Your task to perform on an android device: Open notification settings Image 0: 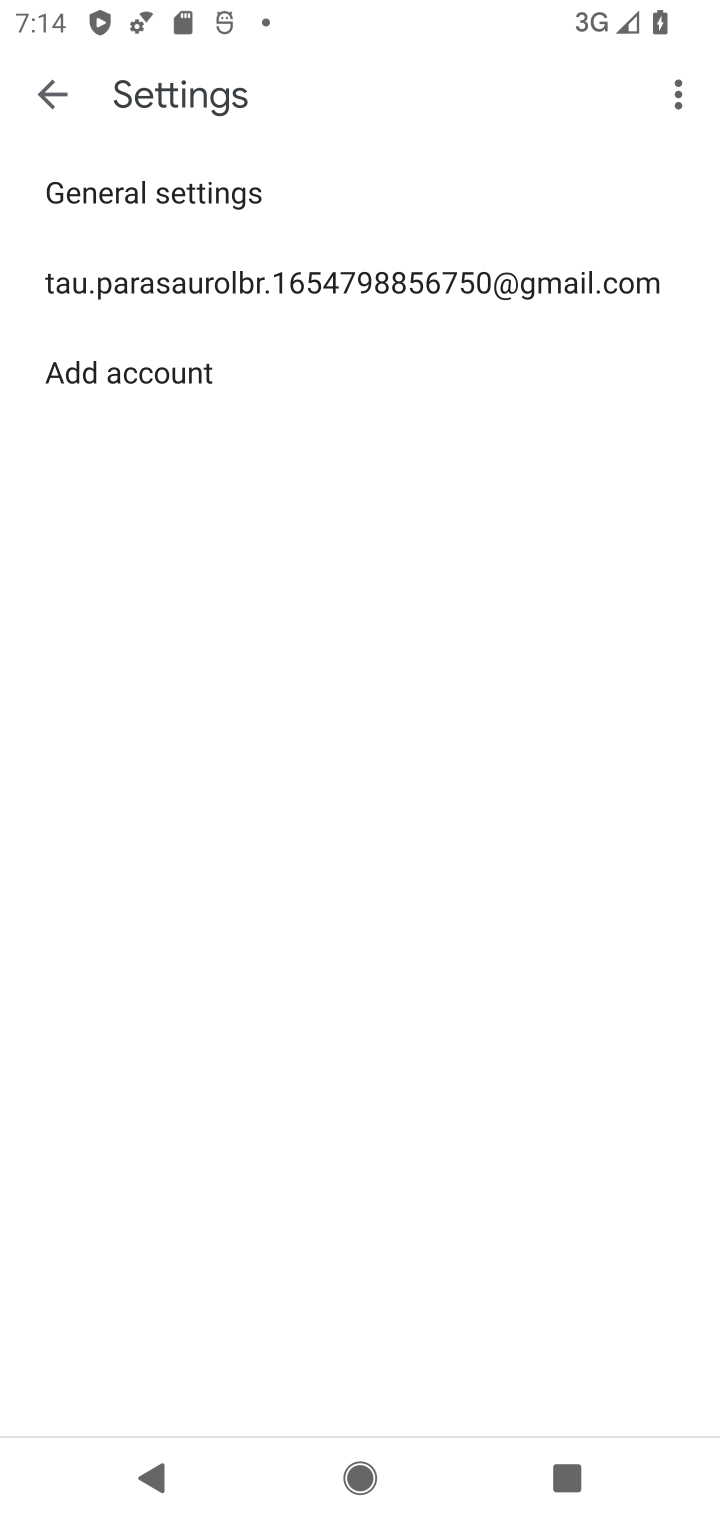
Step 0: press home button
Your task to perform on an android device: Open notification settings Image 1: 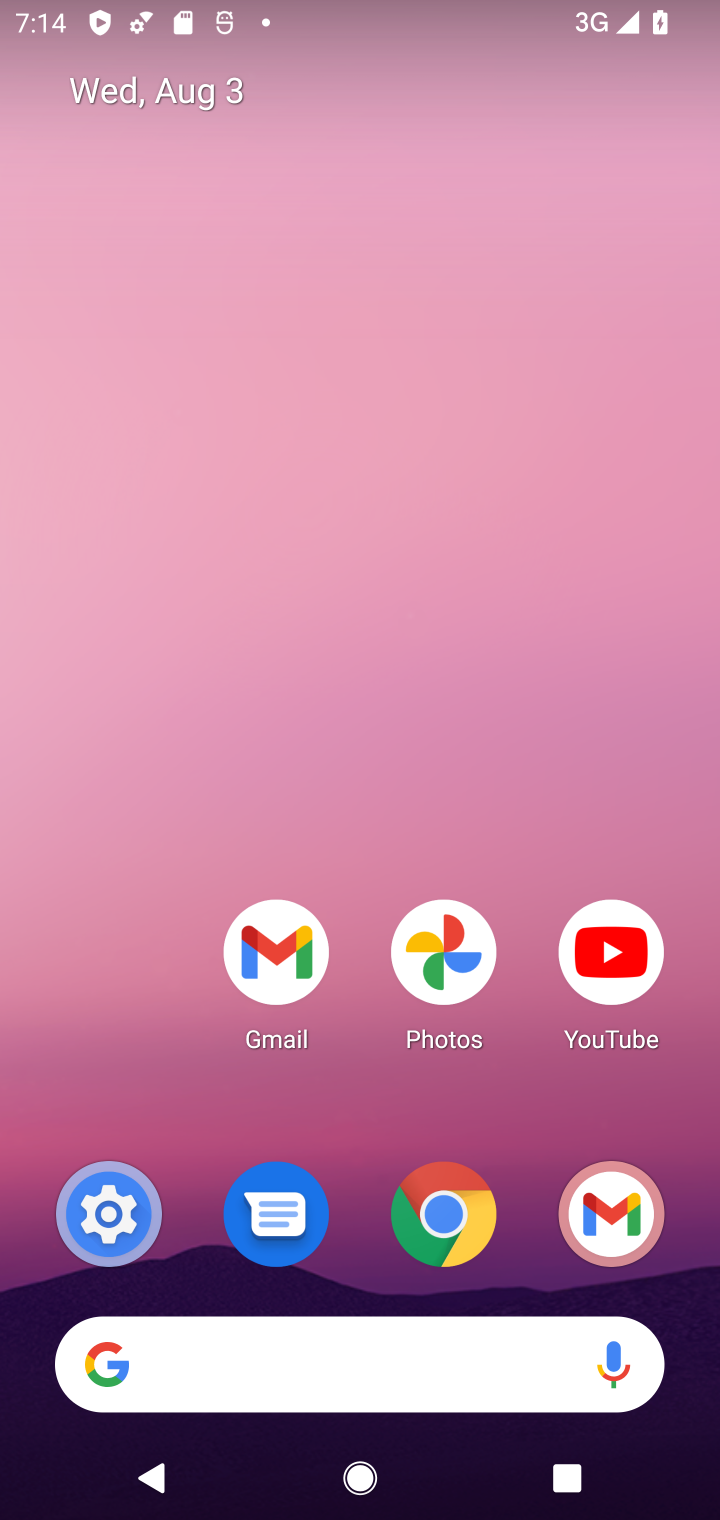
Step 1: drag from (30, 817) to (456, 13)
Your task to perform on an android device: Open notification settings Image 2: 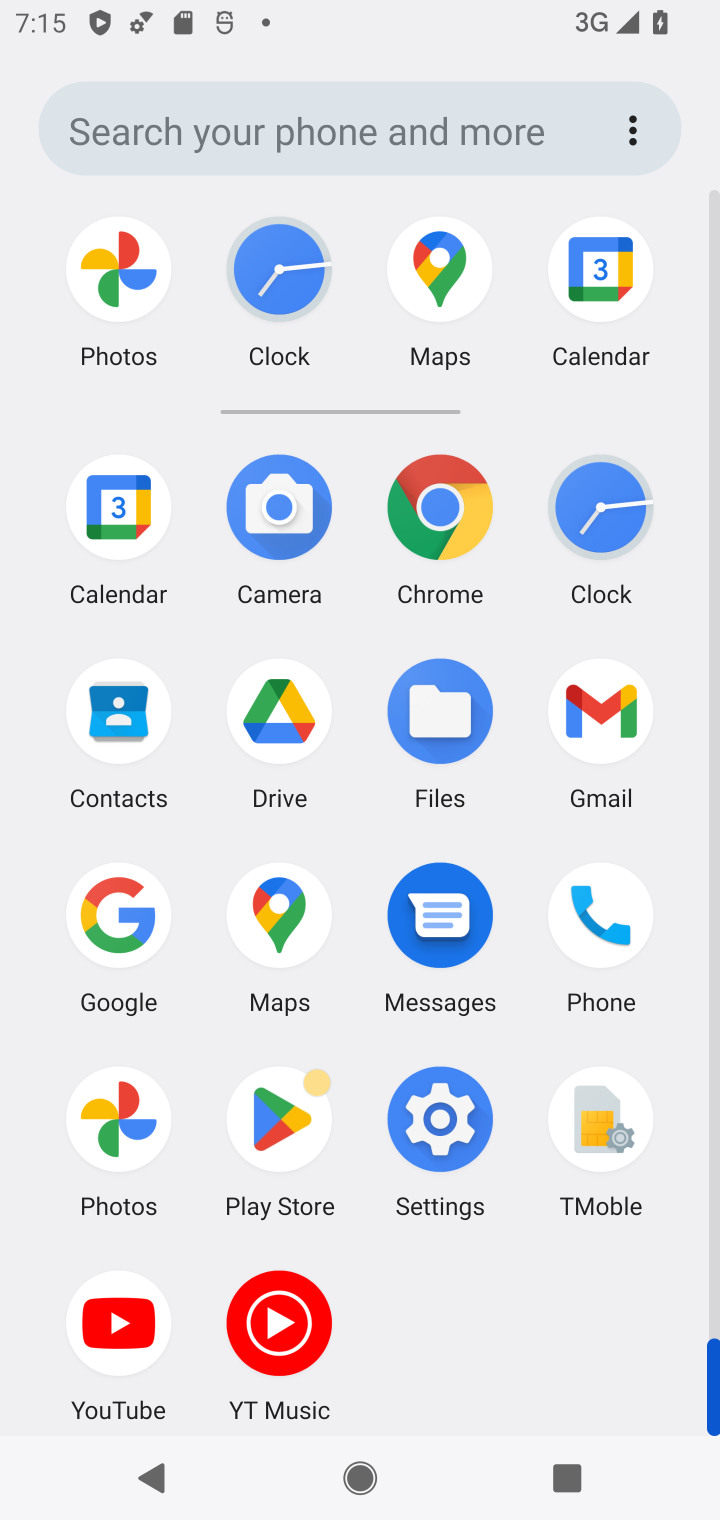
Step 2: click (411, 1141)
Your task to perform on an android device: Open notification settings Image 3: 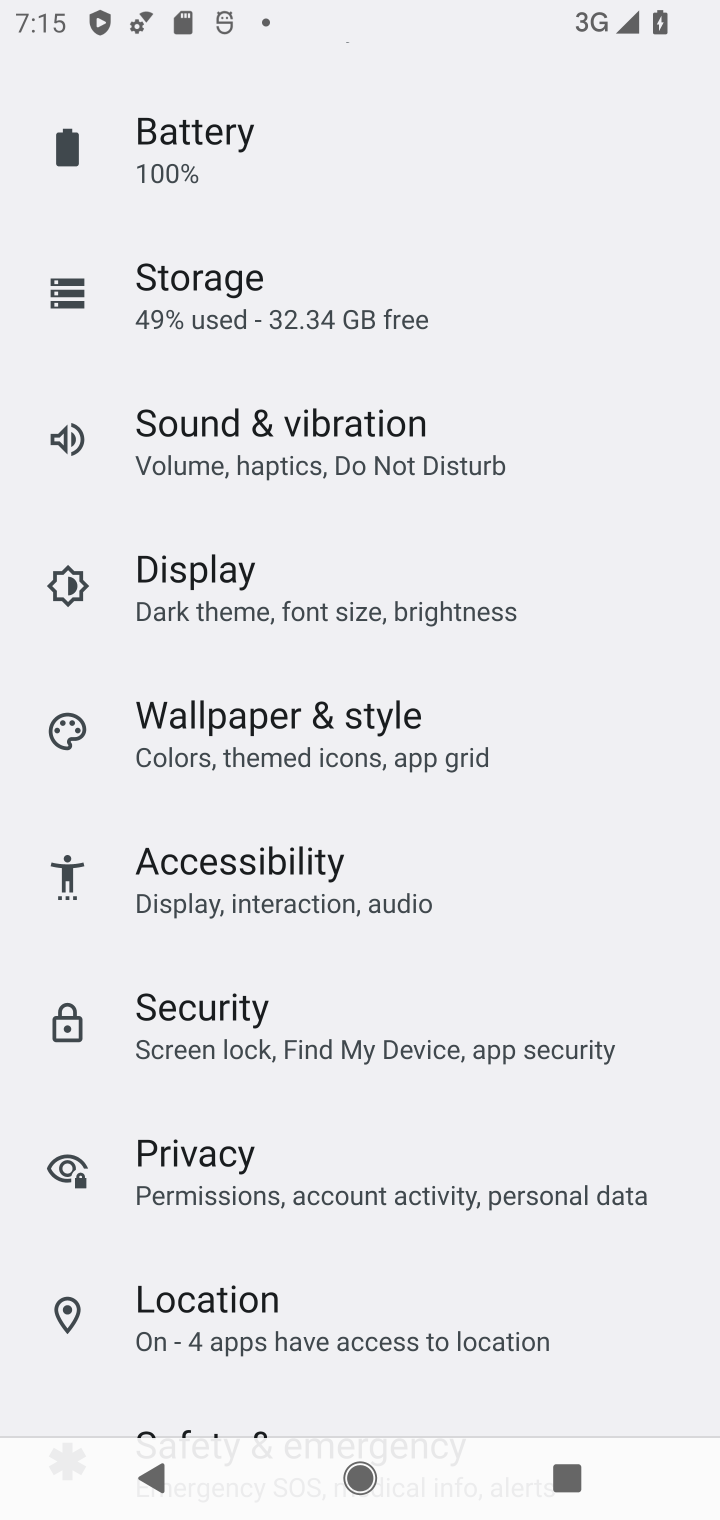
Step 3: drag from (382, 645) to (333, 1274)
Your task to perform on an android device: Open notification settings Image 4: 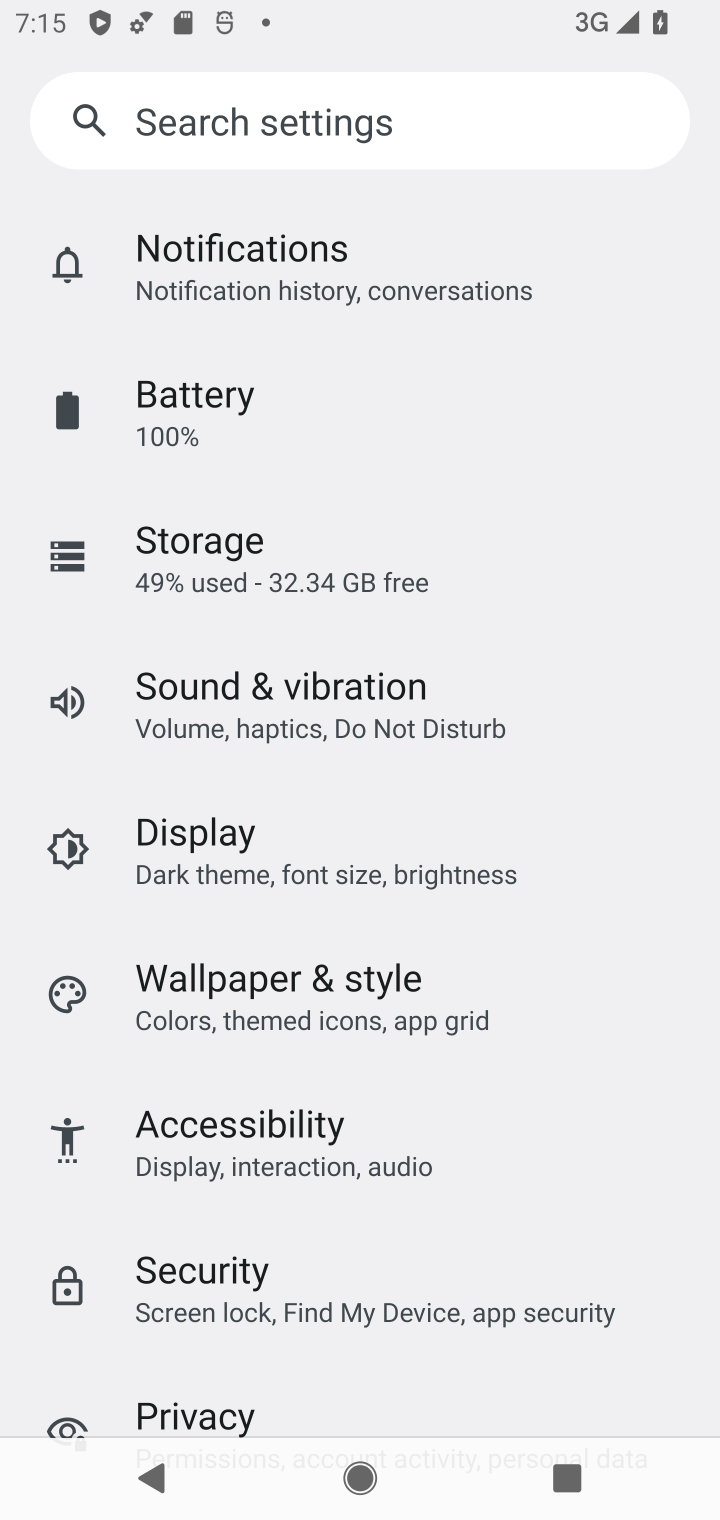
Step 4: click (333, 293)
Your task to perform on an android device: Open notification settings Image 5: 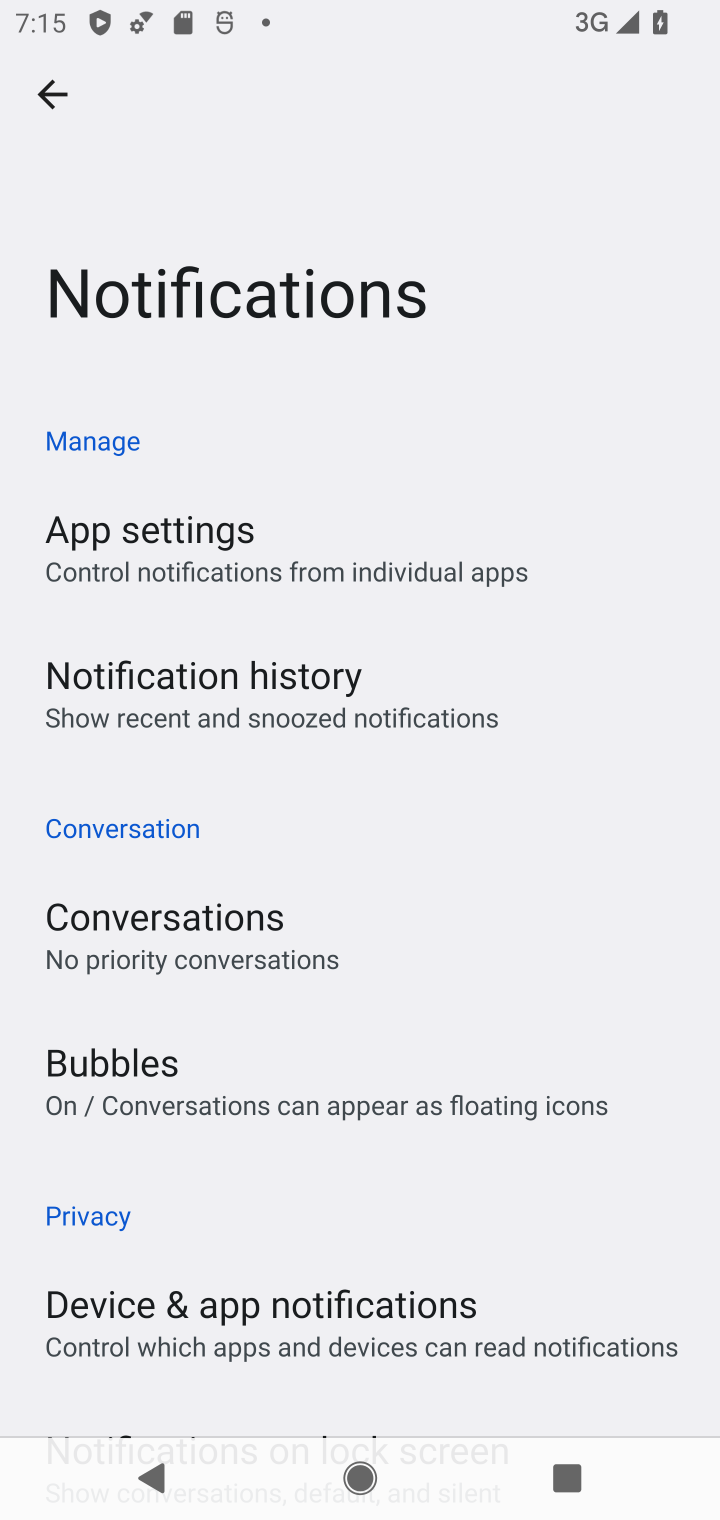
Step 5: click (199, 725)
Your task to perform on an android device: Open notification settings Image 6: 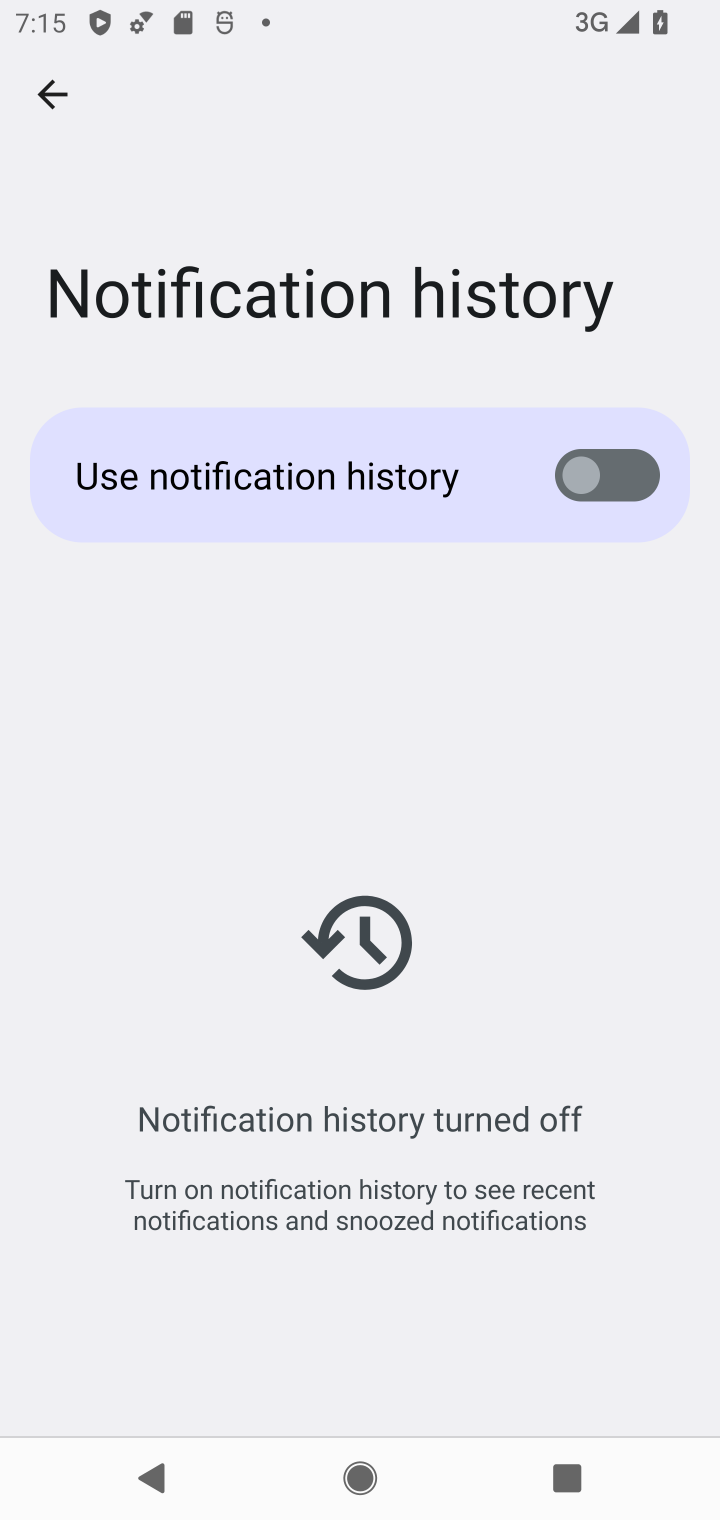
Step 6: task complete